Your task to perform on an android device: toggle javascript in the chrome app Image 0: 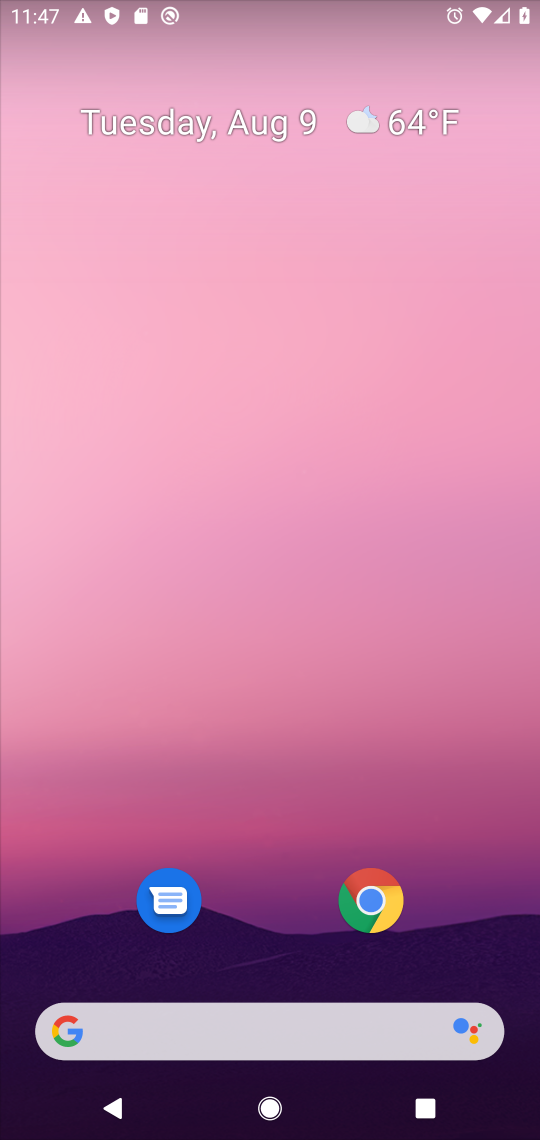
Step 0: click (368, 898)
Your task to perform on an android device: toggle javascript in the chrome app Image 1: 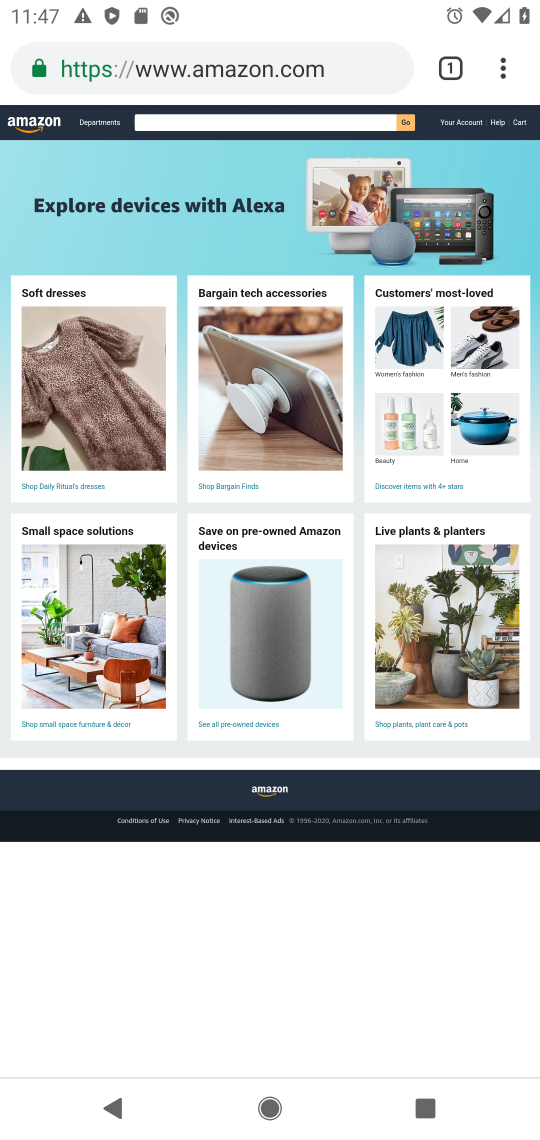
Step 1: click (504, 67)
Your task to perform on an android device: toggle javascript in the chrome app Image 2: 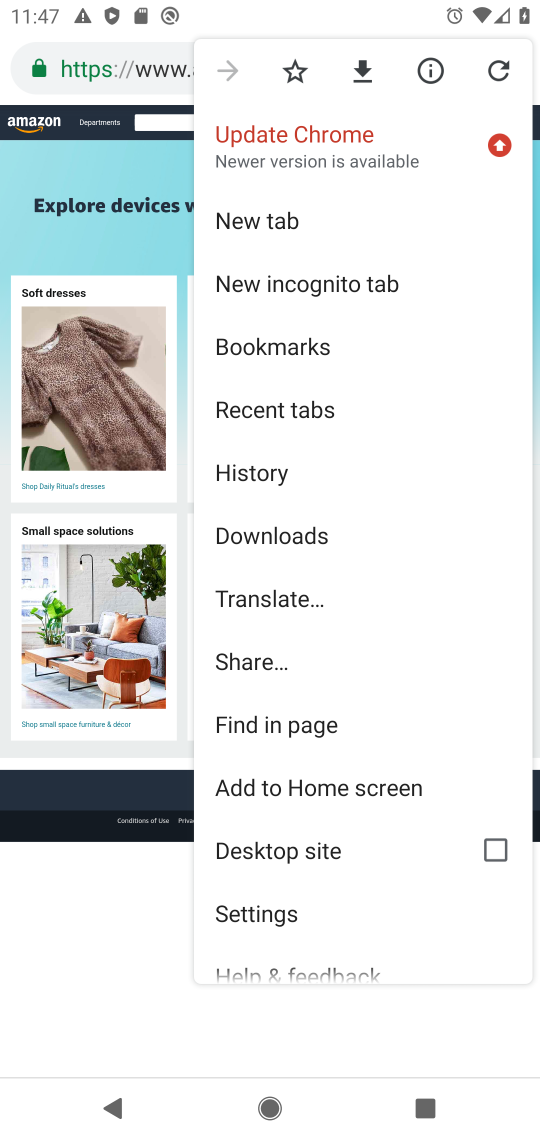
Step 2: click (300, 910)
Your task to perform on an android device: toggle javascript in the chrome app Image 3: 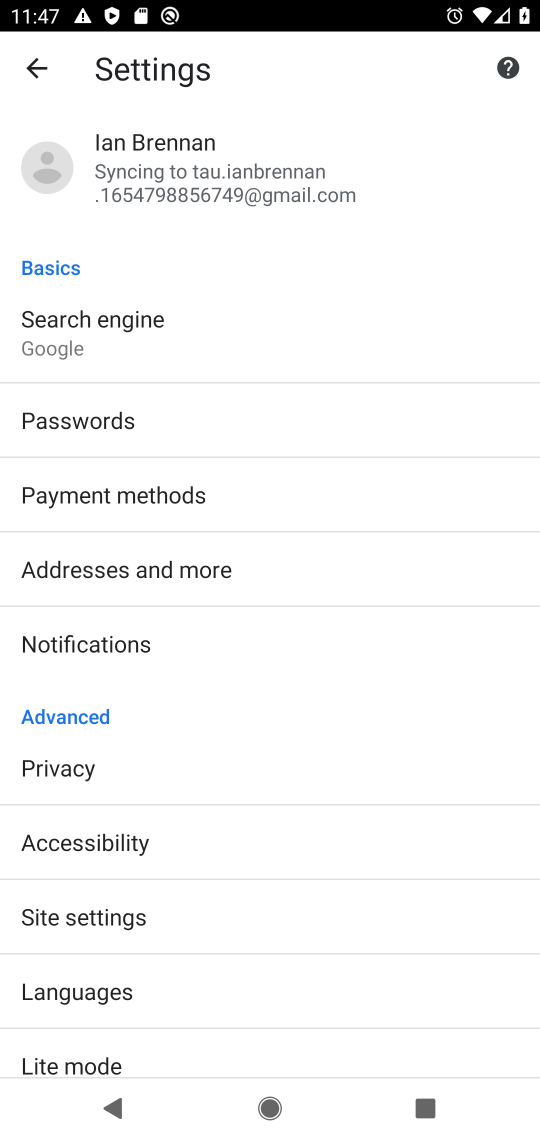
Step 3: click (300, 908)
Your task to perform on an android device: toggle javascript in the chrome app Image 4: 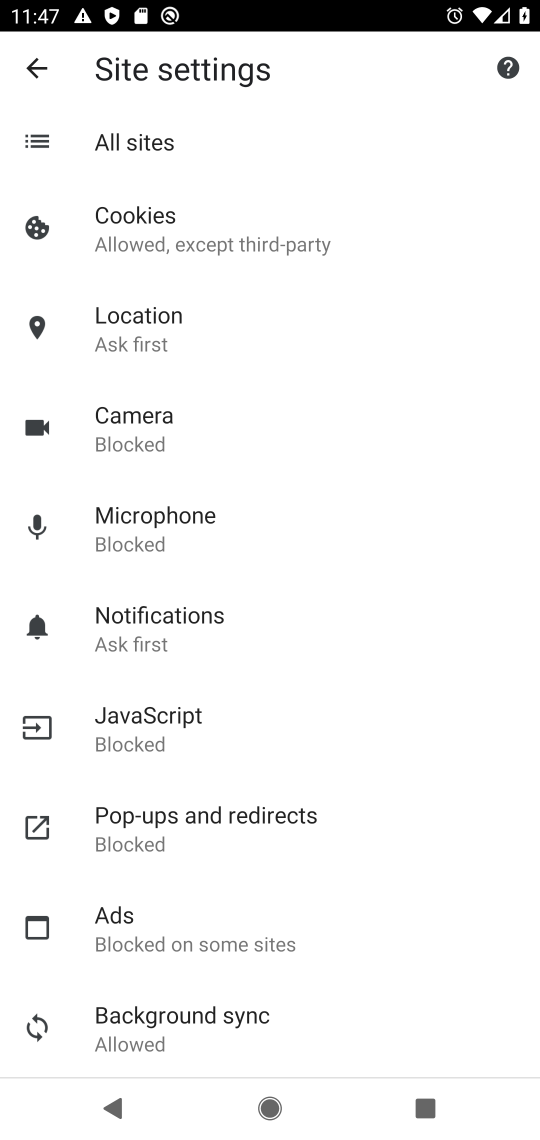
Step 4: click (234, 721)
Your task to perform on an android device: toggle javascript in the chrome app Image 5: 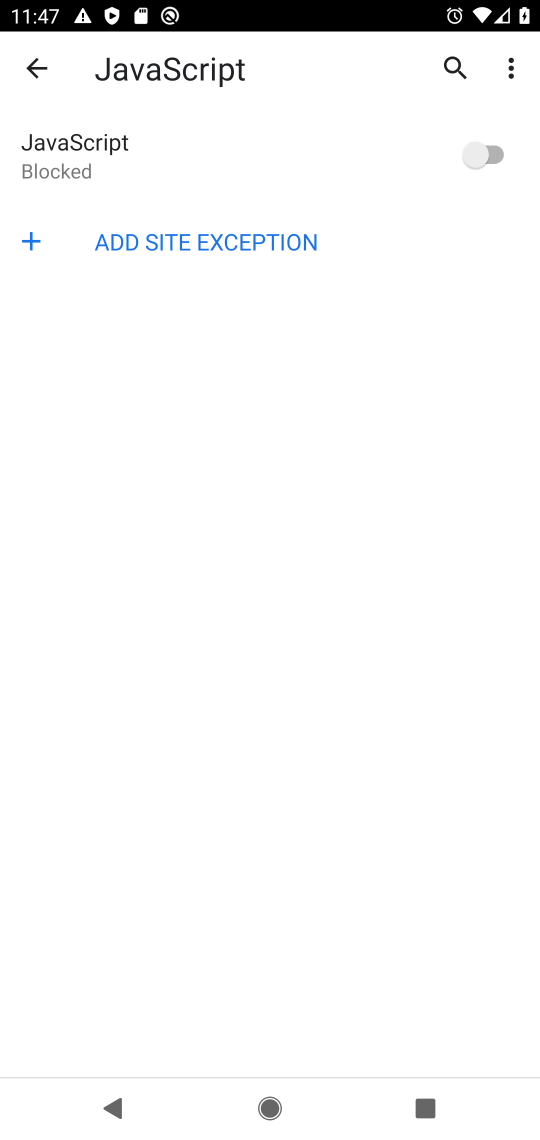
Step 5: click (486, 154)
Your task to perform on an android device: toggle javascript in the chrome app Image 6: 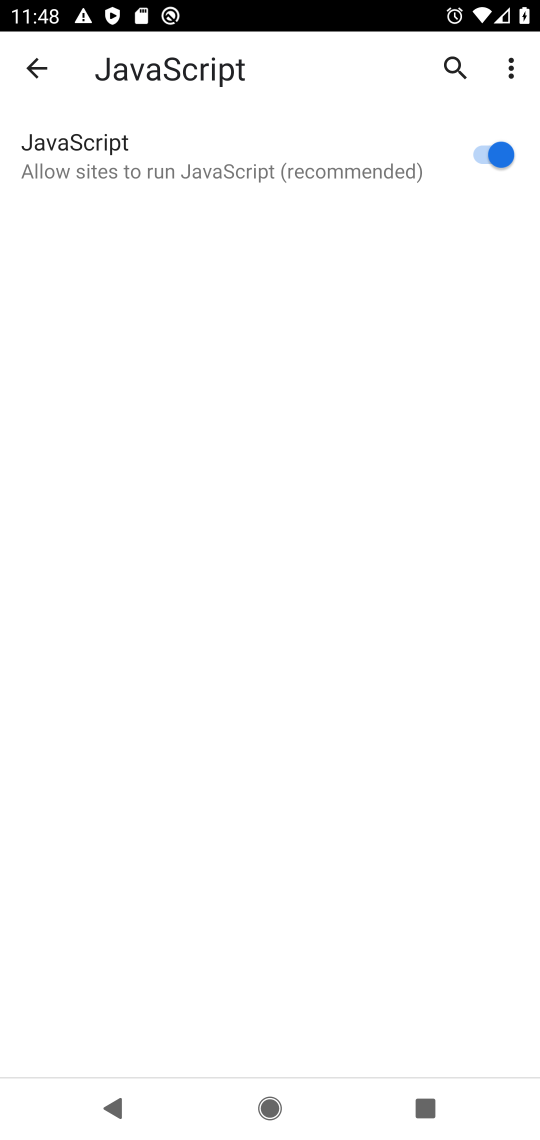
Step 6: task complete